Your task to perform on an android device: Open Android settings Image 0: 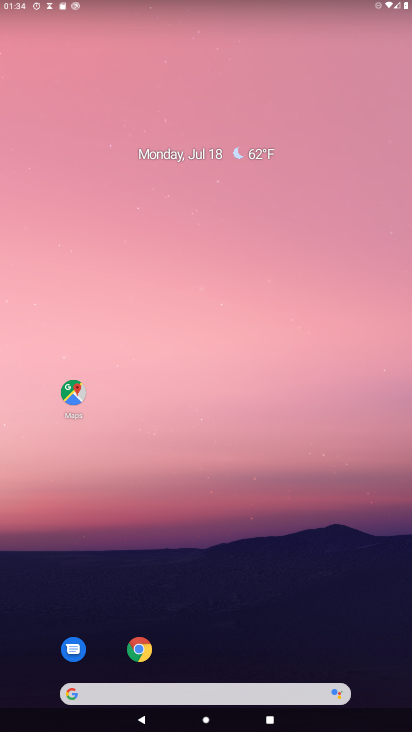
Step 0: drag from (82, 587) to (219, 97)
Your task to perform on an android device: Open Android settings Image 1: 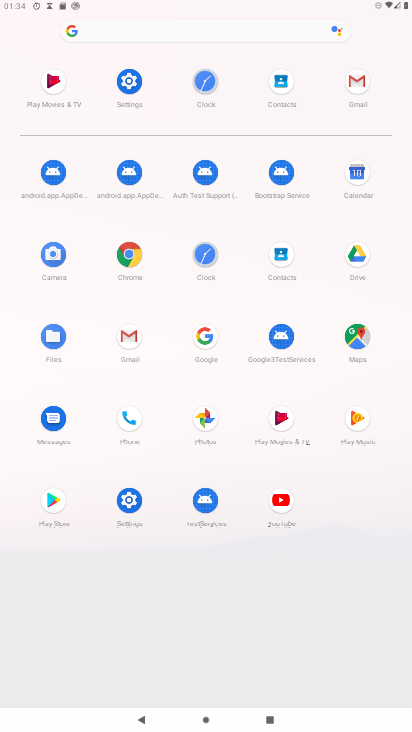
Step 1: click (131, 512)
Your task to perform on an android device: Open Android settings Image 2: 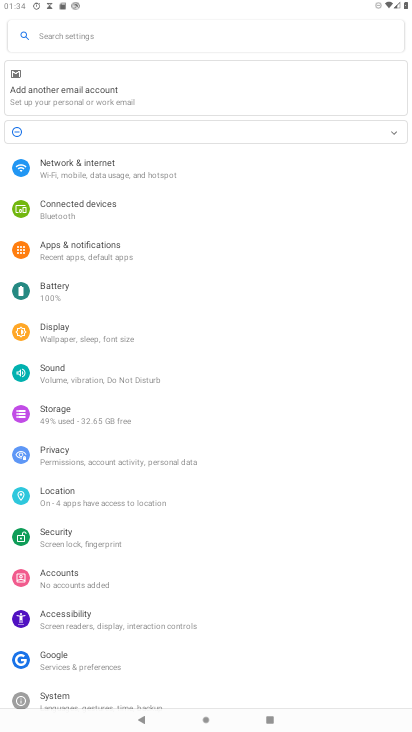
Step 2: drag from (217, 597) to (228, 394)
Your task to perform on an android device: Open Android settings Image 3: 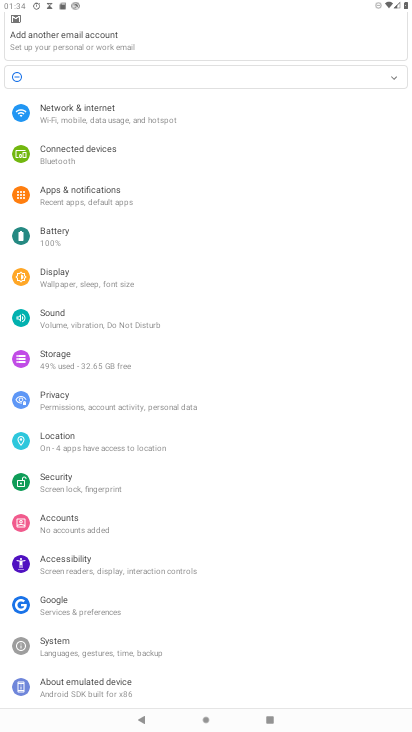
Step 3: click (76, 685)
Your task to perform on an android device: Open Android settings Image 4: 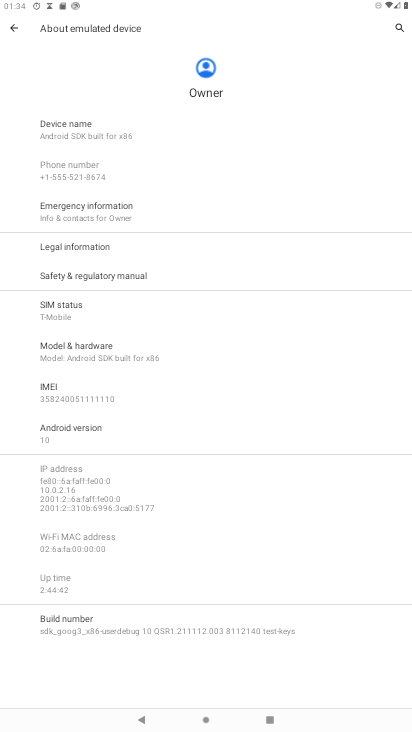
Step 4: click (88, 434)
Your task to perform on an android device: Open Android settings Image 5: 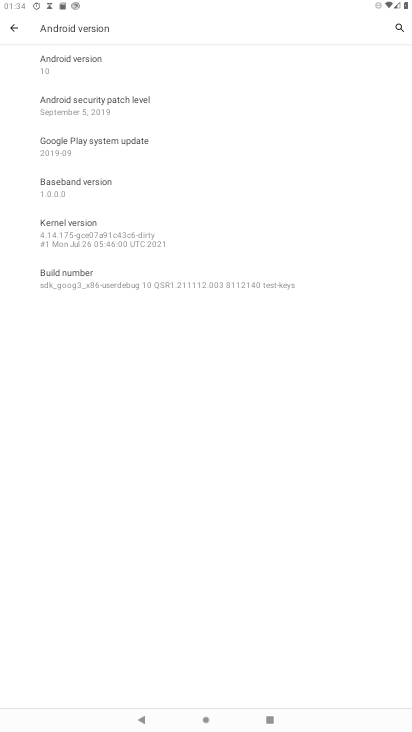
Step 5: task complete